Your task to perform on an android device: Play the last video I watched on Youtube Image 0: 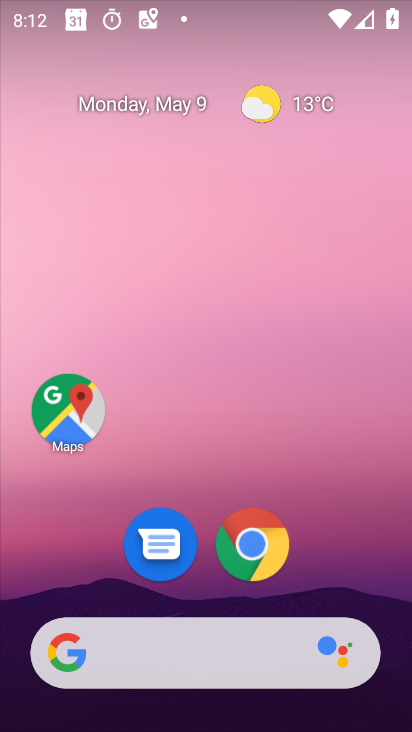
Step 0: drag from (361, 537) to (262, 54)
Your task to perform on an android device: Play the last video I watched on Youtube Image 1: 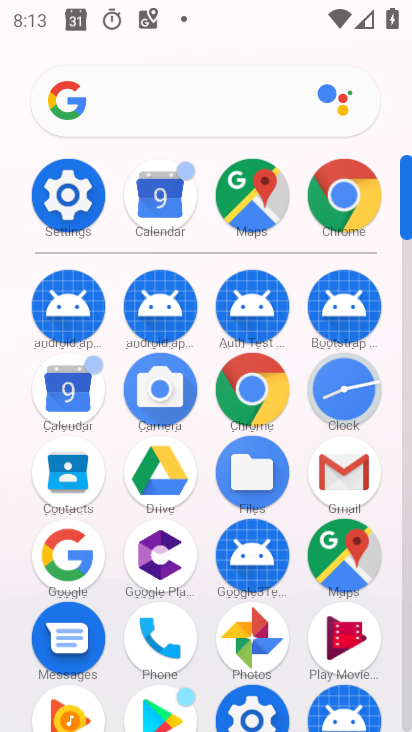
Step 1: drag from (398, 644) to (349, 329)
Your task to perform on an android device: Play the last video I watched on Youtube Image 2: 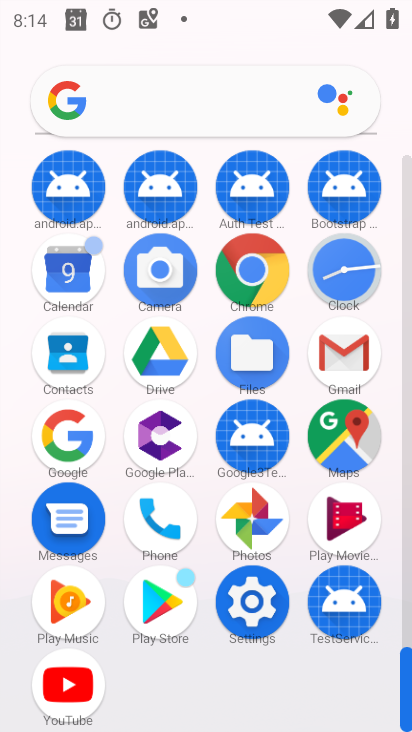
Step 2: click (72, 679)
Your task to perform on an android device: Play the last video I watched on Youtube Image 3: 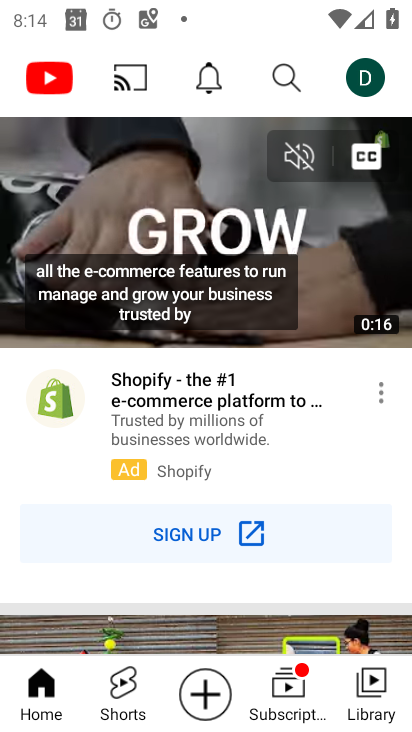
Step 3: click (376, 690)
Your task to perform on an android device: Play the last video I watched on Youtube Image 4: 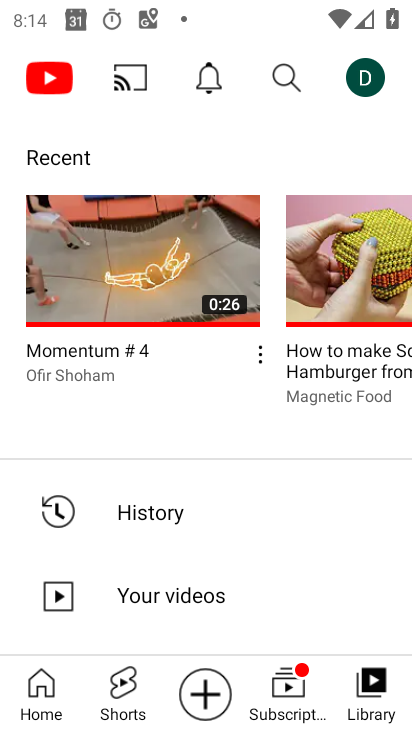
Step 4: click (112, 293)
Your task to perform on an android device: Play the last video I watched on Youtube Image 5: 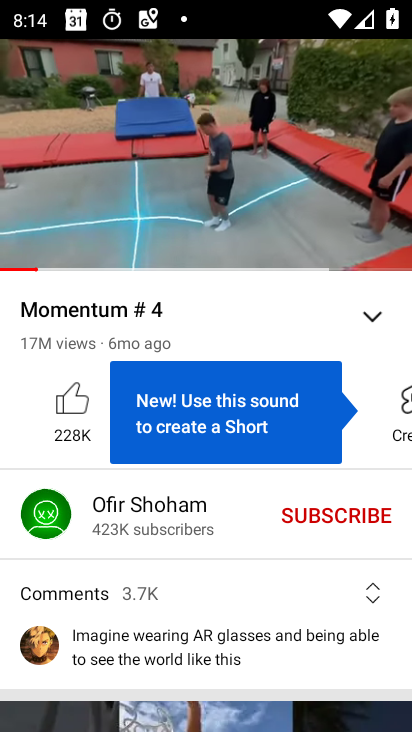
Step 5: task complete